Your task to perform on an android device: Open a new Chrome window Image 0: 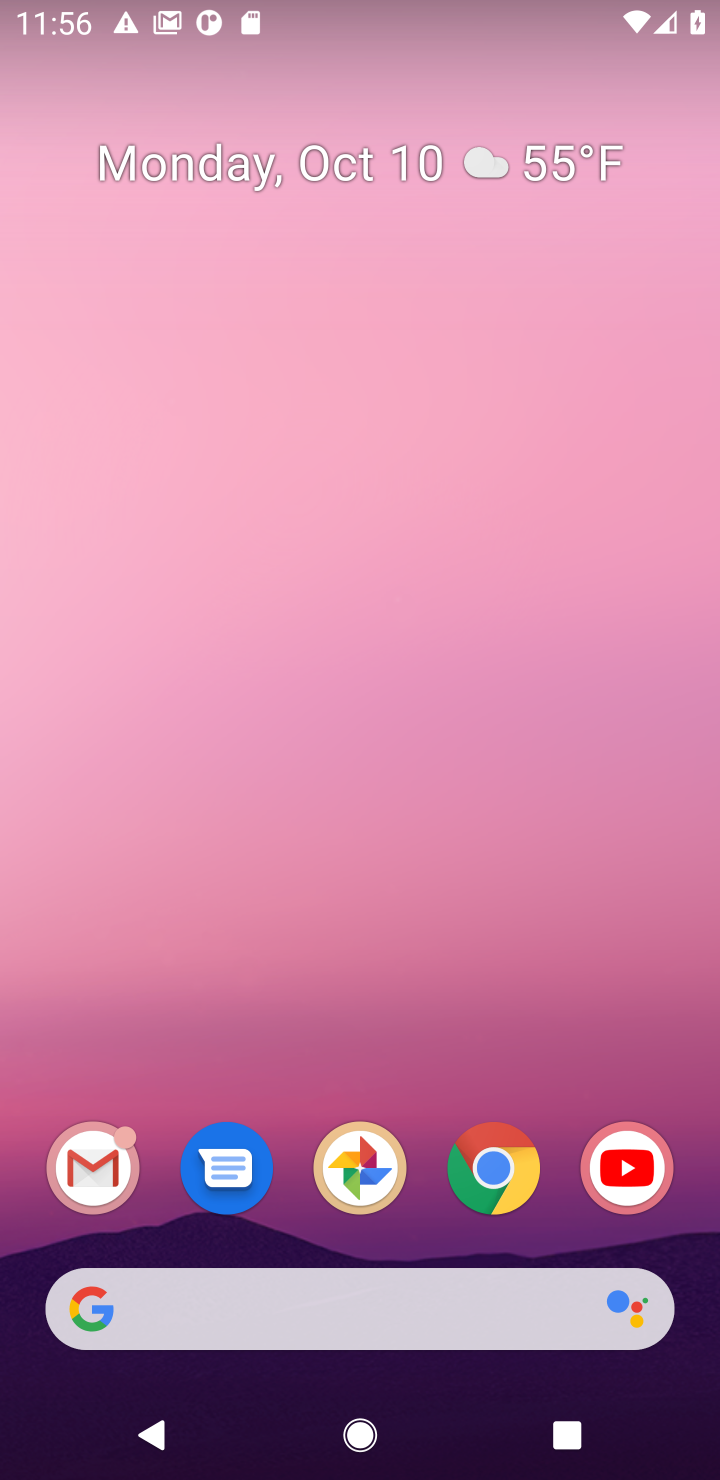
Step 0: drag from (367, 1193) to (671, 879)
Your task to perform on an android device: Open a new Chrome window Image 1: 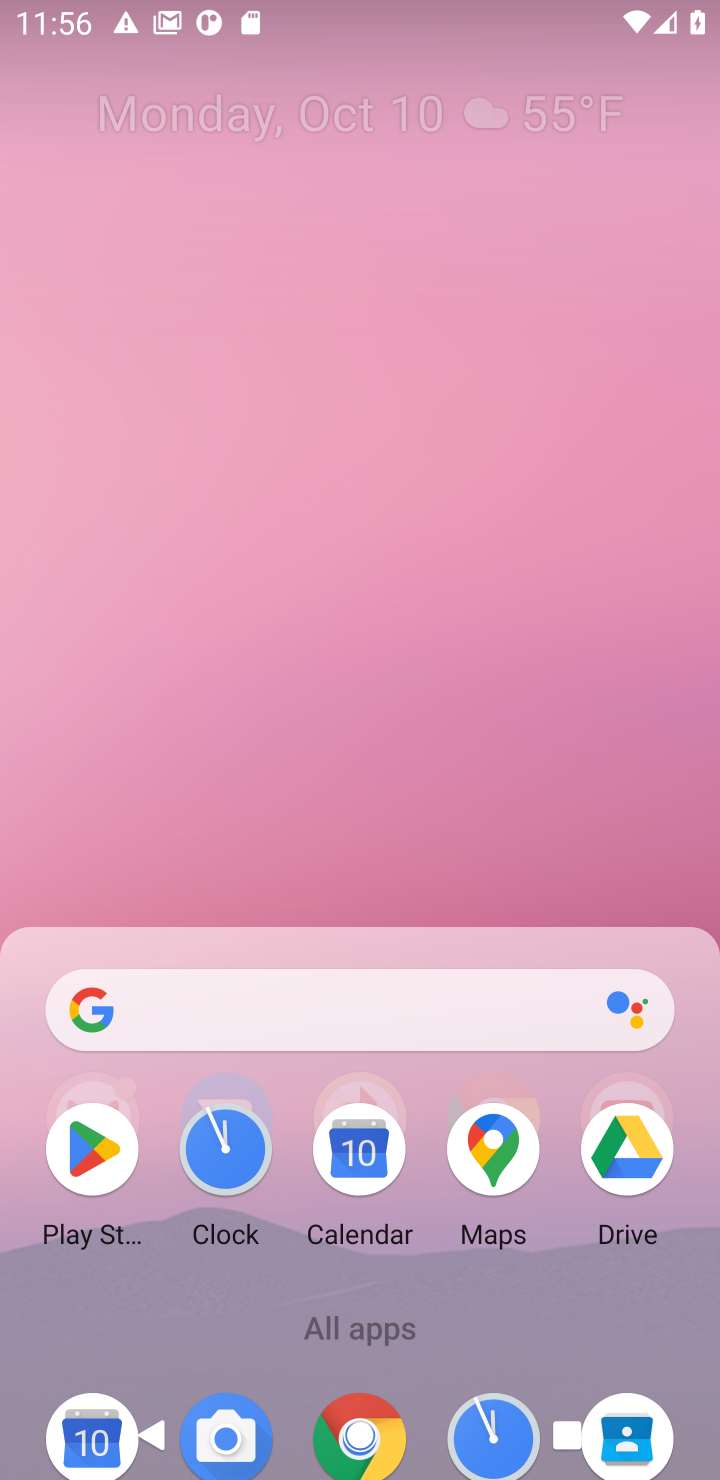
Step 1: drag from (516, 886) to (515, 339)
Your task to perform on an android device: Open a new Chrome window Image 2: 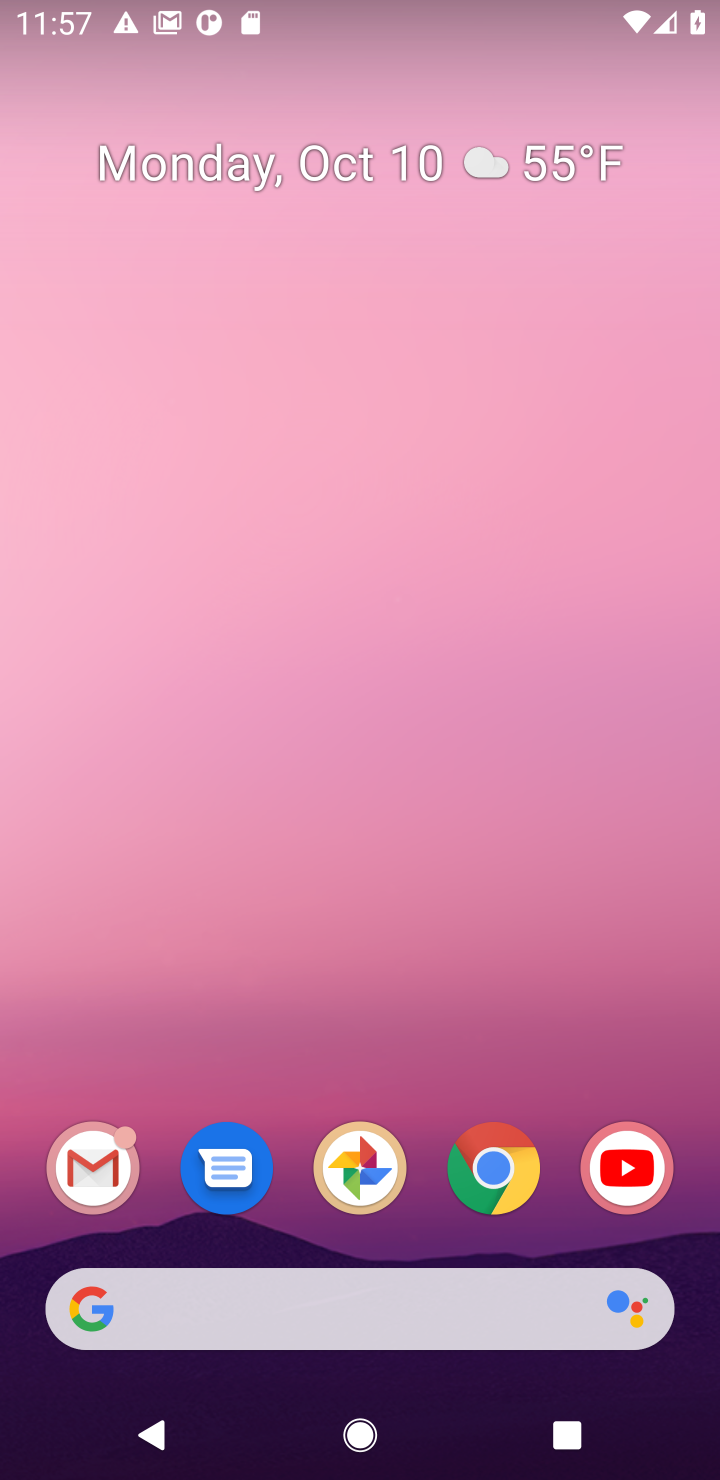
Step 2: click (510, 1185)
Your task to perform on an android device: Open a new Chrome window Image 3: 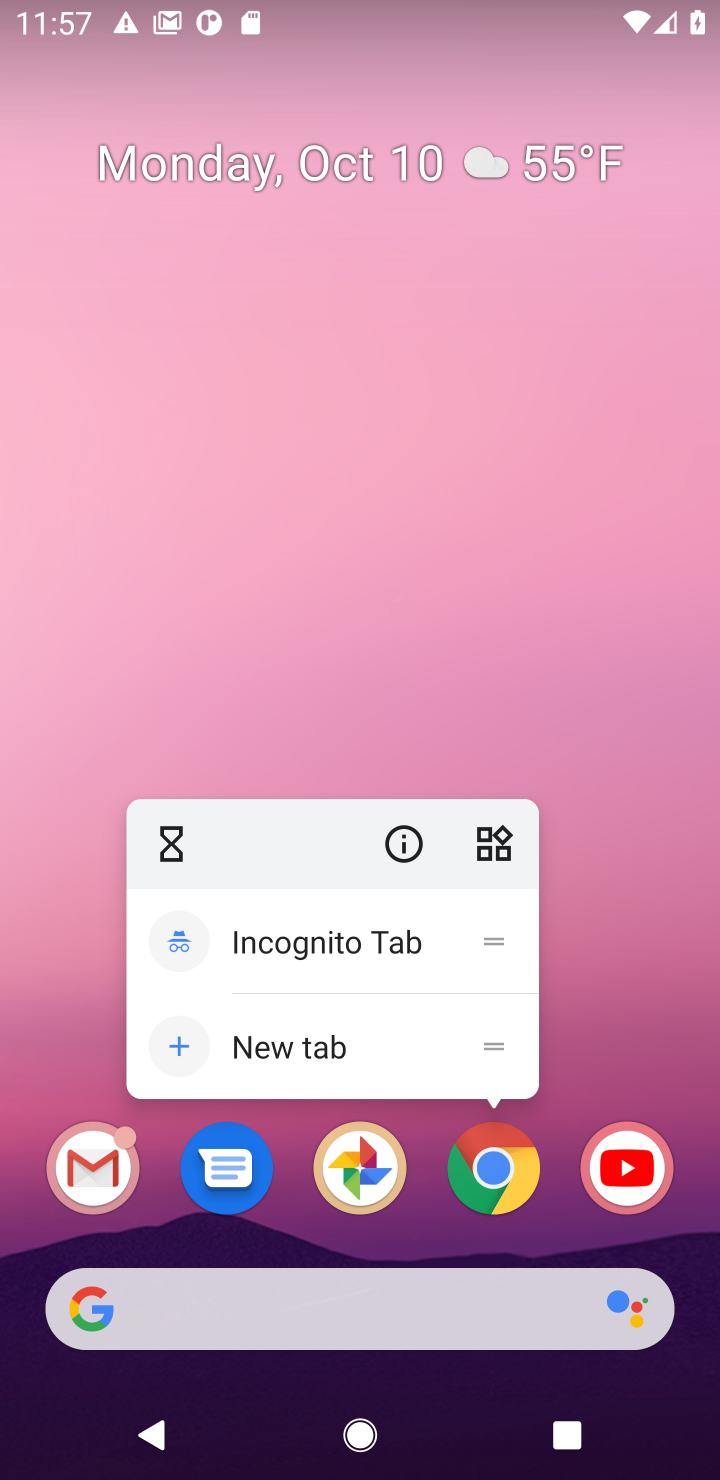
Step 3: click (510, 1185)
Your task to perform on an android device: Open a new Chrome window Image 4: 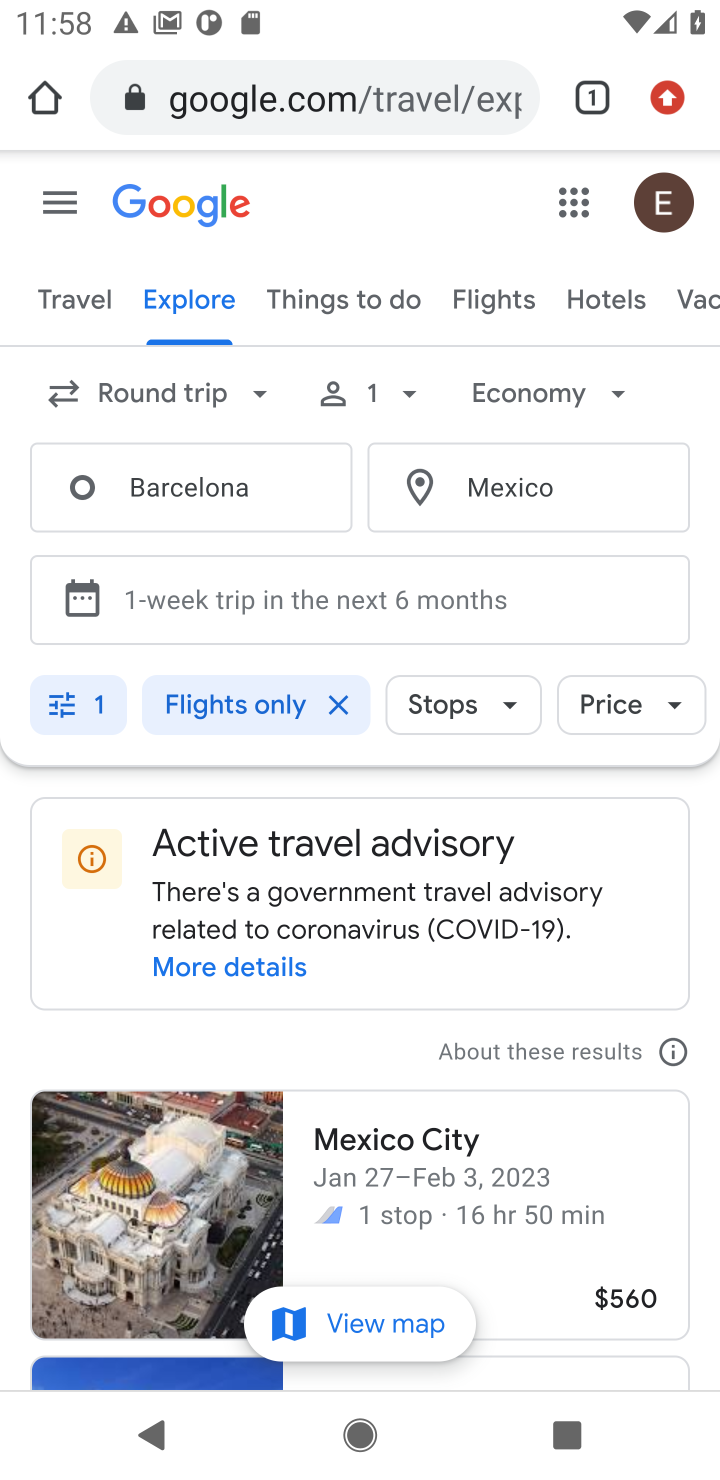
Step 4: drag from (583, 95) to (581, 535)
Your task to perform on an android device: Open a new Chrome window Image 5: 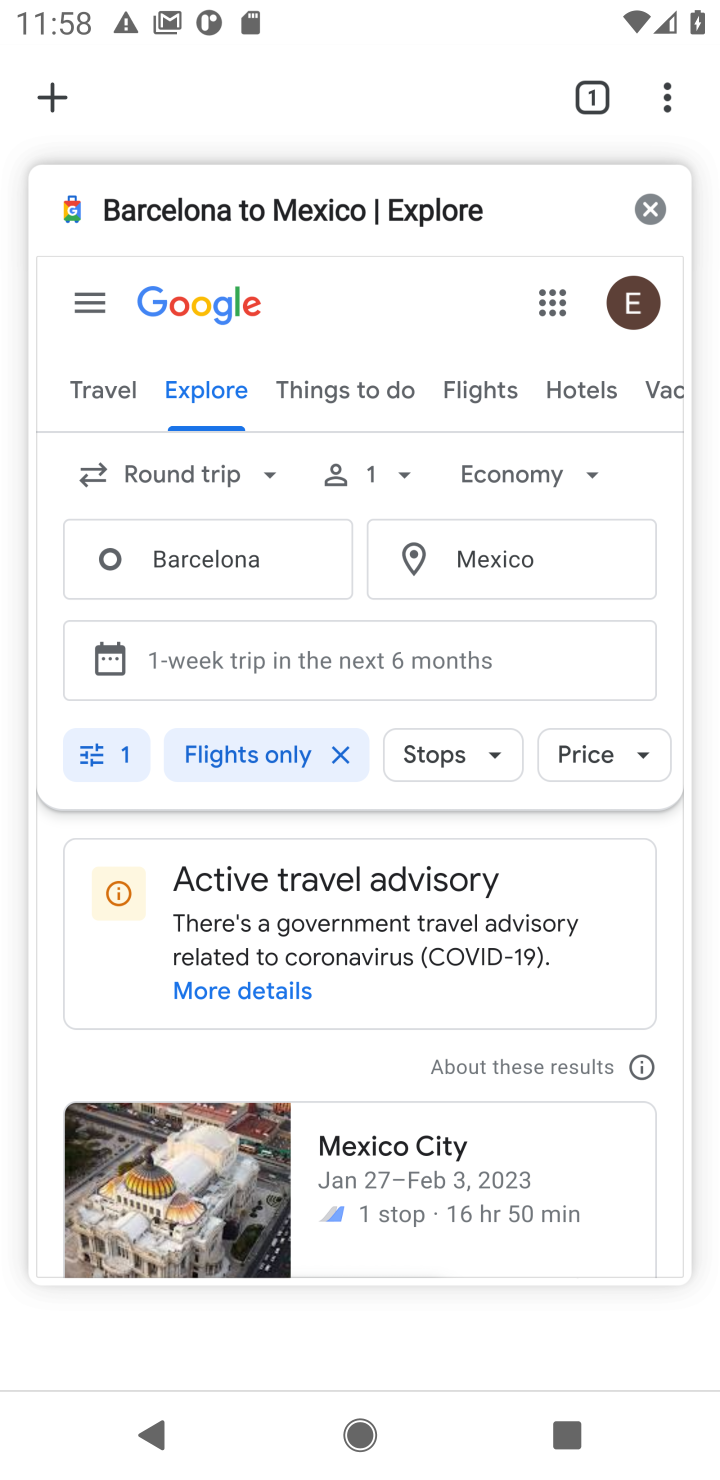
Step 5: click (48, 102)
Your task to perform on an android device: Open a new Chrome window Image 6: 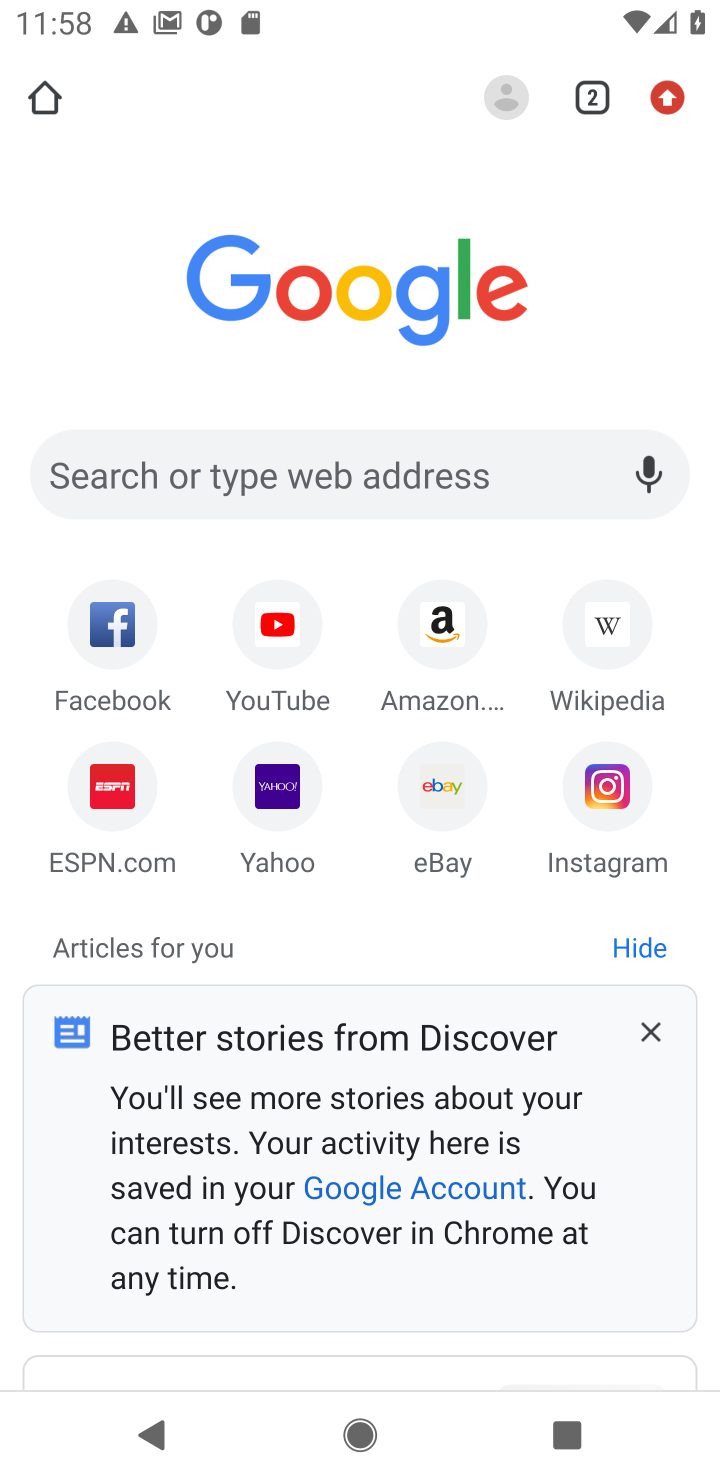
Step 6: task complete